Your task to perform on an android device: toggle sleep mode Image 0: 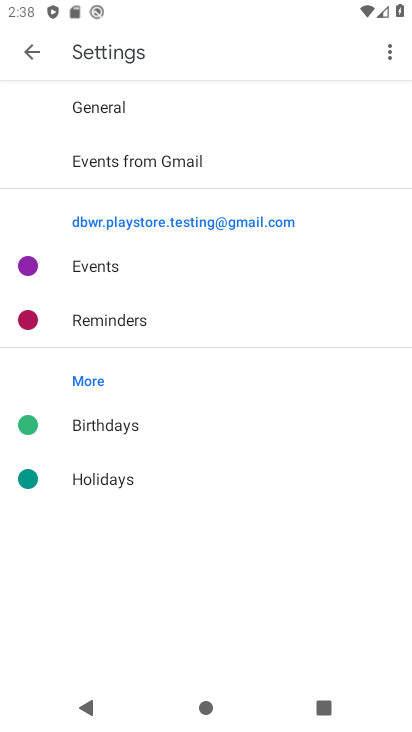
Step 0: press back button
Your task to perform on an android device: toggle sleep mode Image 1: 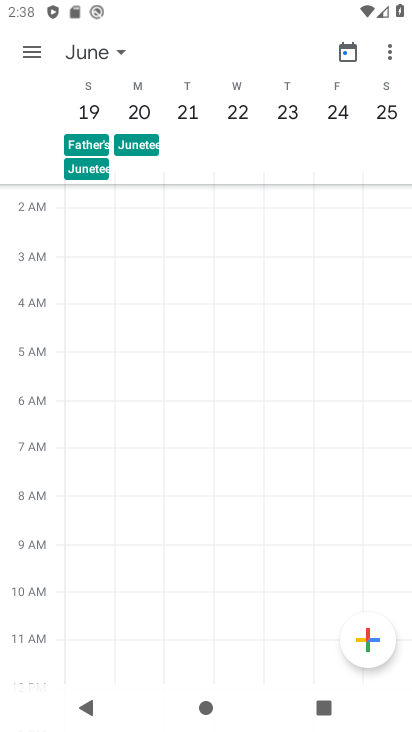
Step 1: press back button
Your task to perform on an android device: toggle sleep mode Image 2: 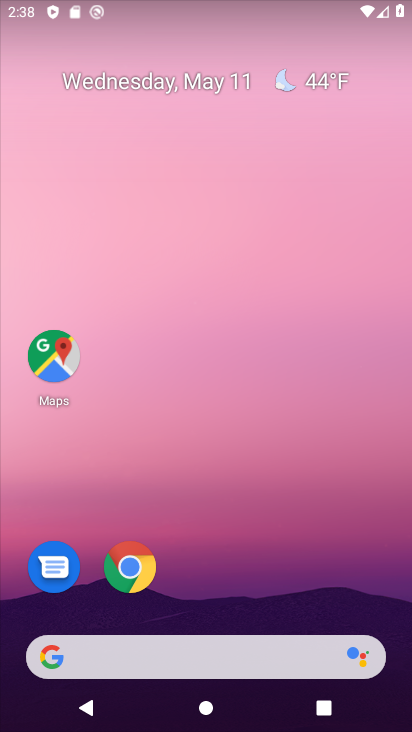
Step 2: drag from (285, 549) to (241, 40)
Your task to perform on an android device: toggle sleep mode Image 3: 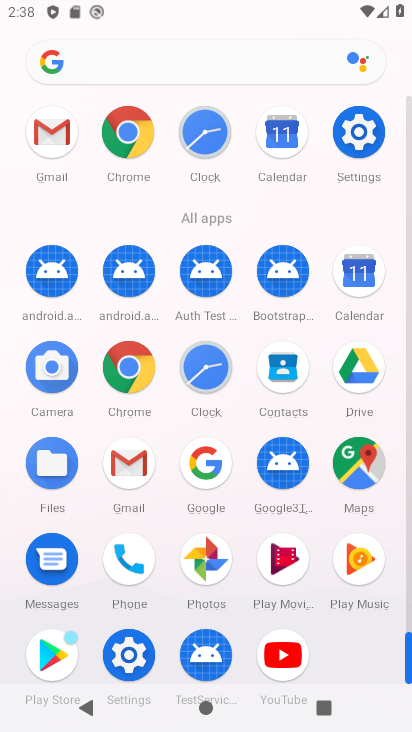
Step 3: click (356, 127)
Your task to perform on an android device: toggle sleep mode Image 4: 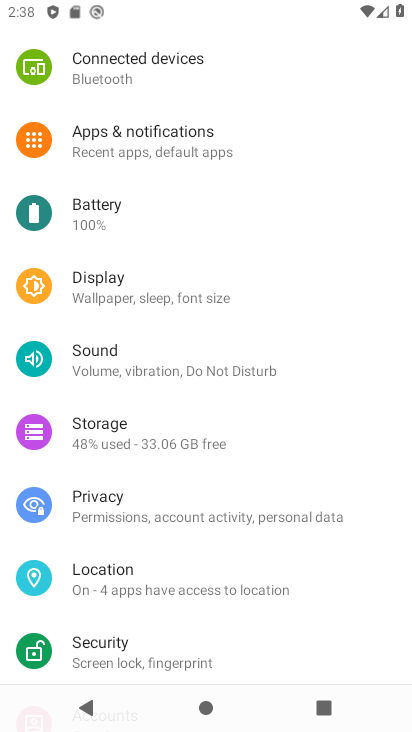
Step 4: drag from (316, 539) to (277, 100)
Your task to perform on an android device: toggle sleep mode Image 5: 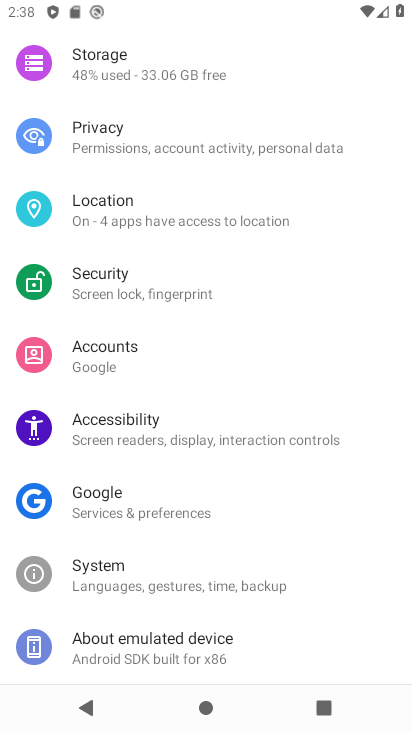
Step 5: drag from (239, 518) to (238, 99)
Your task to perform on an android device: toggle sleep mode Image 6: 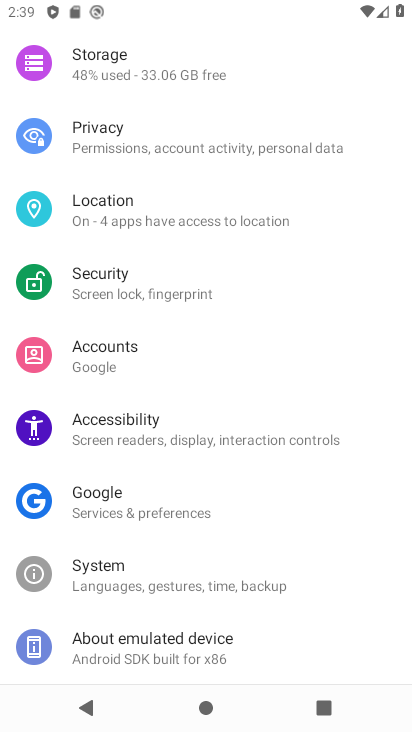
Step 6: drag from (242, 224) to (239, 603)
Your task to perform on an android device: toggle sleep mode Image 7: 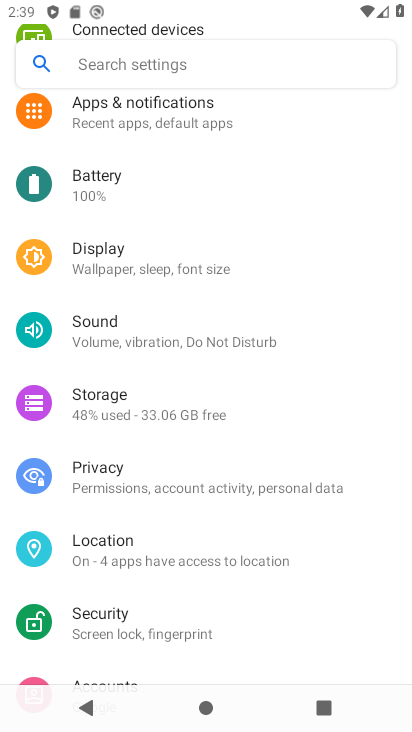
Step 7: drag from (271, 180) to (262, 579)
Your task to perform on an android device: toggle sleep mode Image 8: 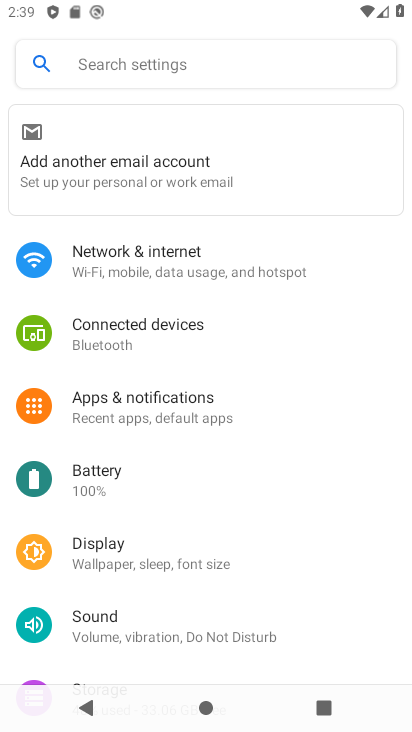
Step 8: click (154, 525)
Your task to perform on an android device: toggle sleep mode Image 9: 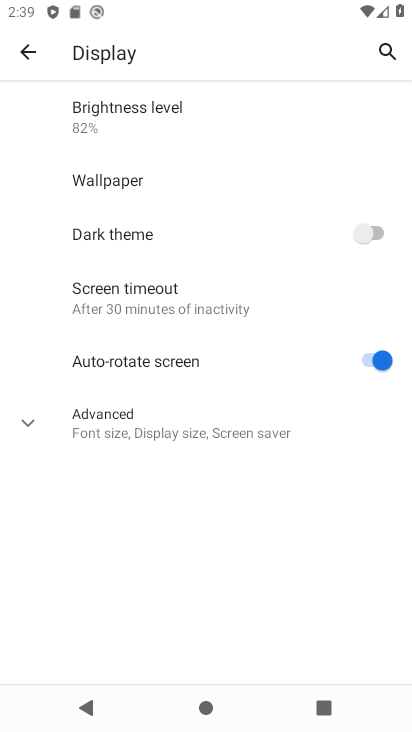
Step 9: click (45, 411)
Your task to perform on an android device: toggle sleep mode Image 10: 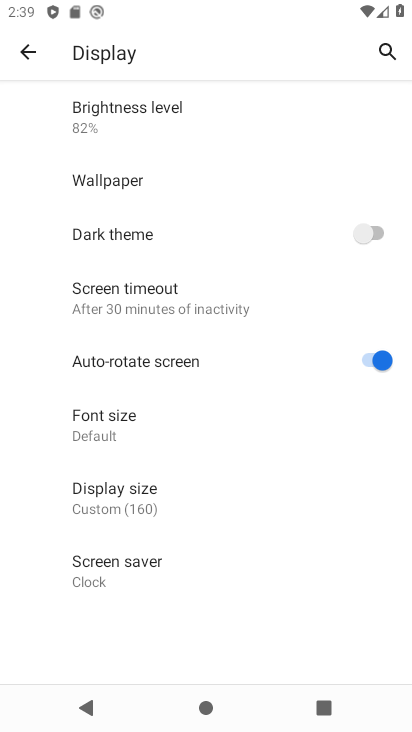
Step 10: task complete